Your task to perform on an android device: Show me productivity apps on the Play Store Image 0: 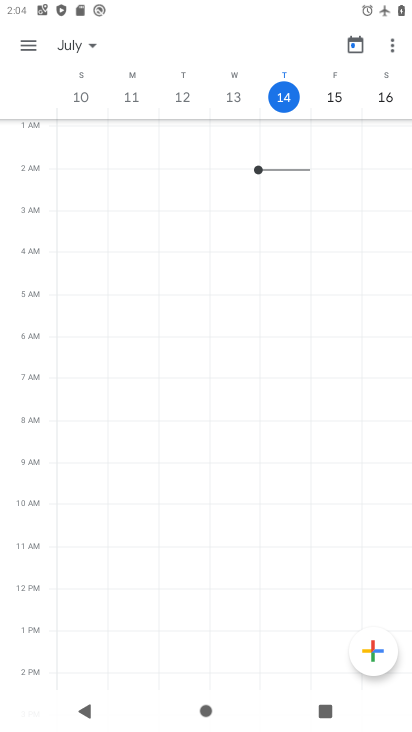
Step 0: press home button
Your task to perform on an android device: Show me productivity apps on the Play Store Image 1: 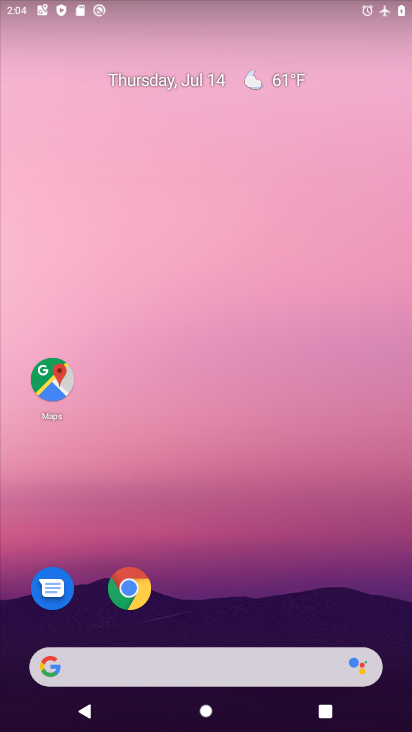
Step 1: drag from (214, 621) to (202, 268)
Your task to perform on an android device: Show me productivity apps on the Play Store Image 2: 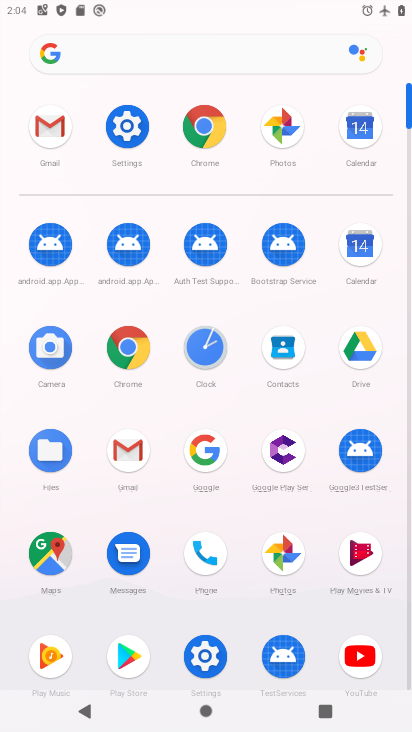
Step 2: click (128, 651)
Your task to perform on an android device: Show me productivity apps on the Play Store Image 3: 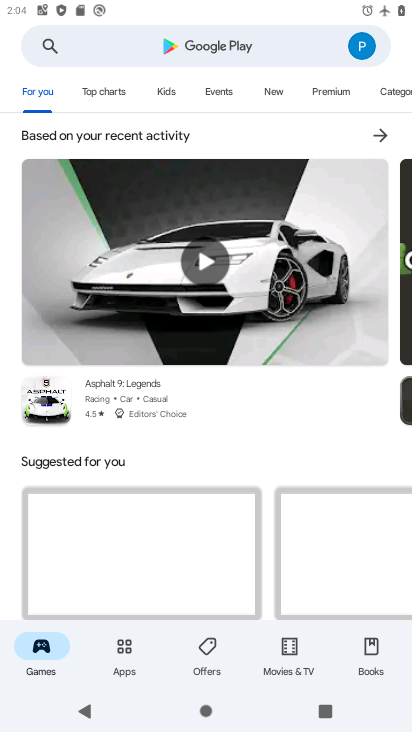
Step 3: click (116, 651)
Your task to perform on an android device: Show me productivity apps on the Play Store Image 4: 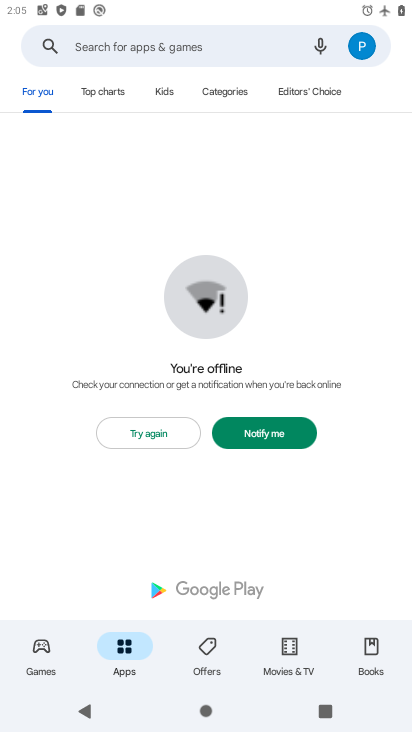
Step 4: task complete